Your task to perform on an android device: Go to CNN.com Image 0: 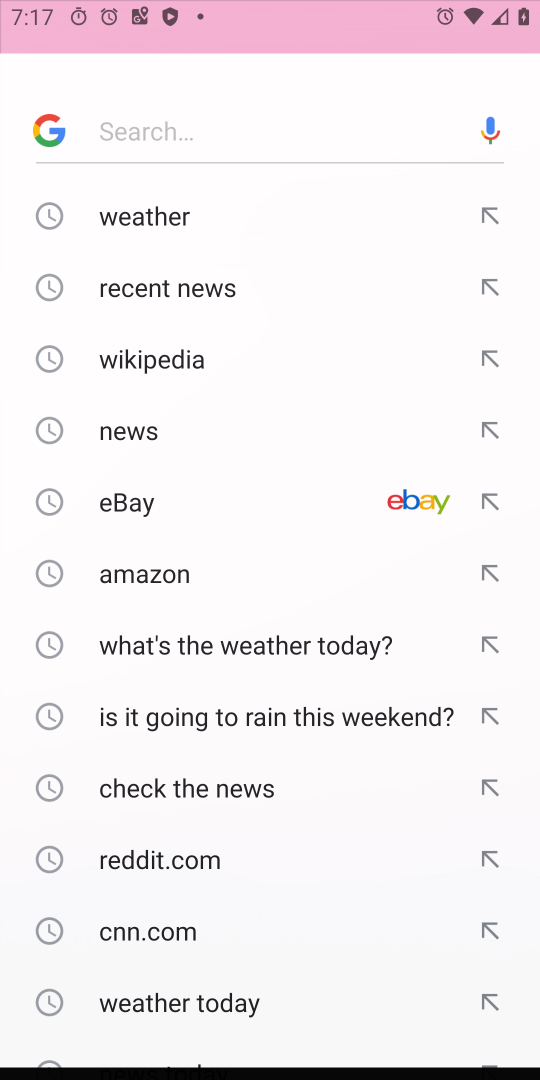
Step 0: press home button
Your task to perform on an android device: Go to CNN.com Image 1: 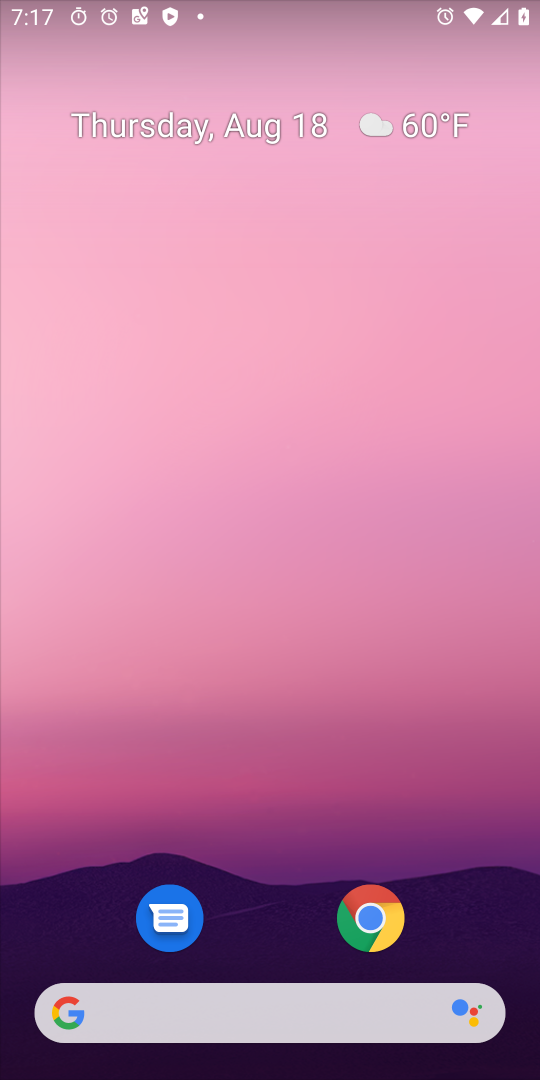
Step 1: click (66, 1028)
Your task to perform on an android device: Go to CNN.com Image 2: 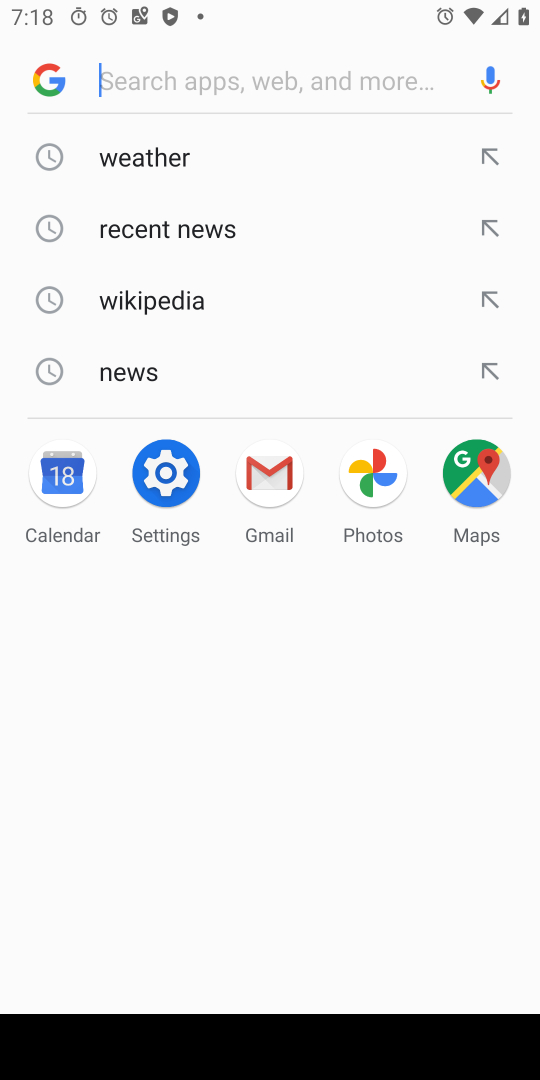
Step 2: press enter
Your task to perform on an android device: Go to CNN.com Image 3: 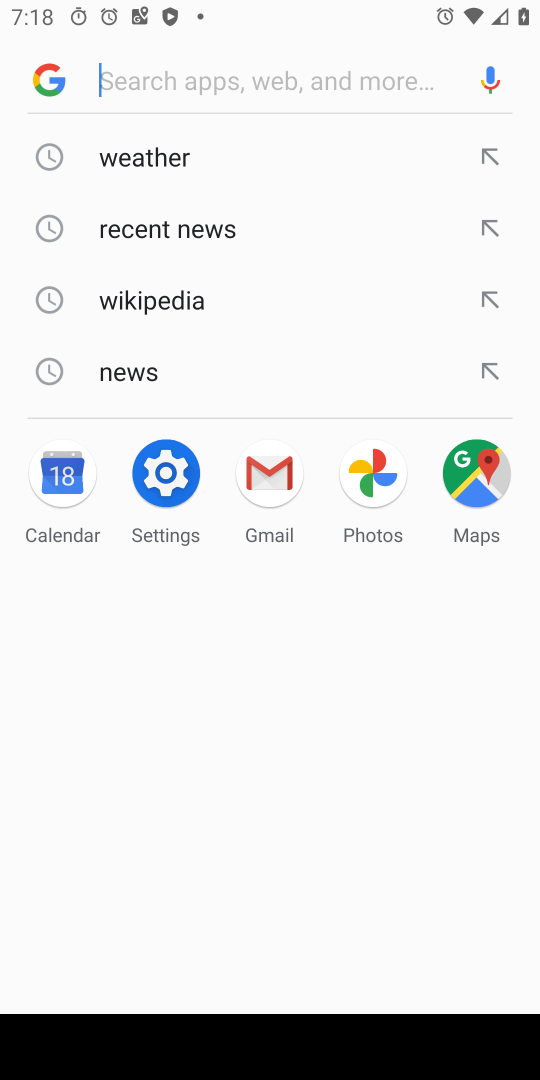
Step 3: type "CNN.com"
Your task to perform on an android device: Go to CNN.com Image 4: 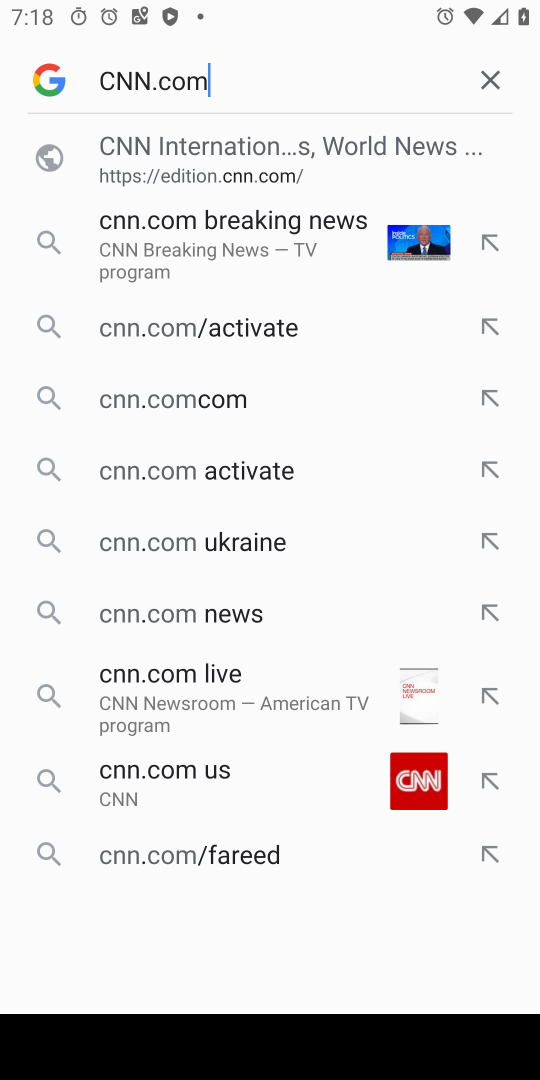
Step 4: press enter
Your task to perform on an android device: Go to CNN.com Image 5: 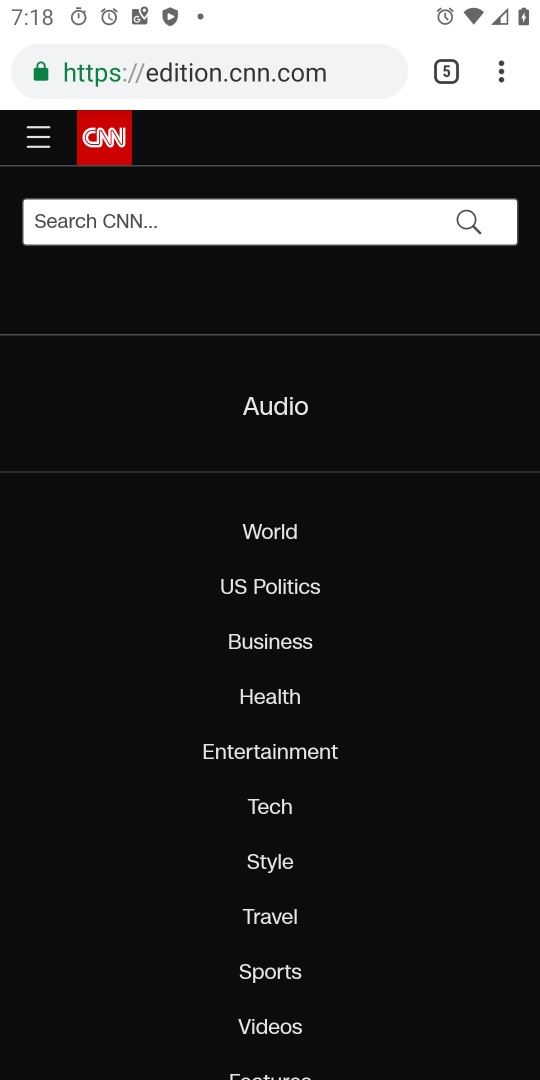
Step 5: task complete